Your task to perform on an android device: turn on translation in the chrome app Image 0: 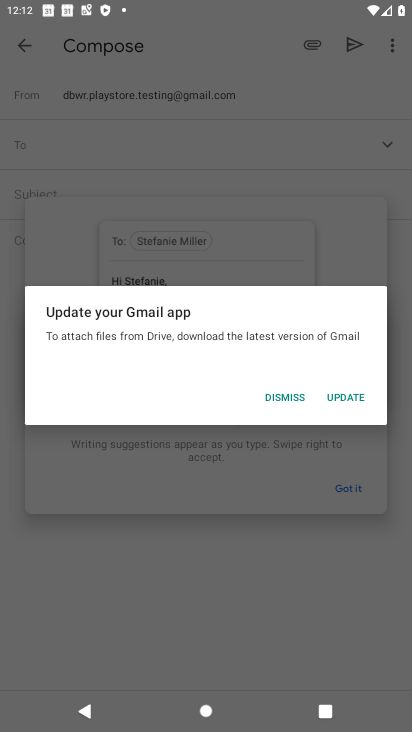
Step 0: press home button
Your task to perform on an android device: turn on translation in the chrome app Image 1: 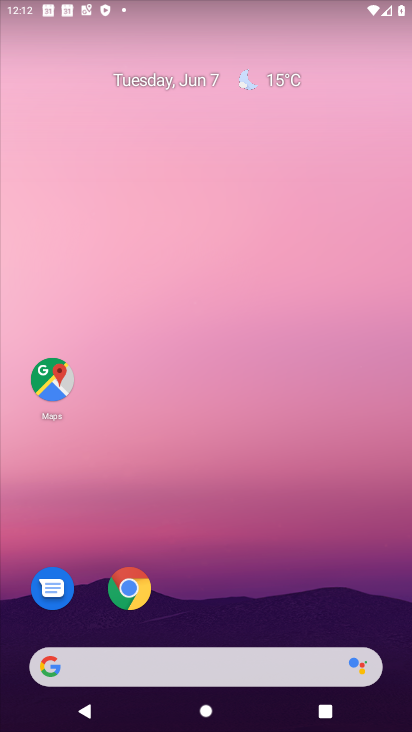
Step 1: click (119, 580)
Your task to perform on an android device: turn on translation in the chrome app Image 2: 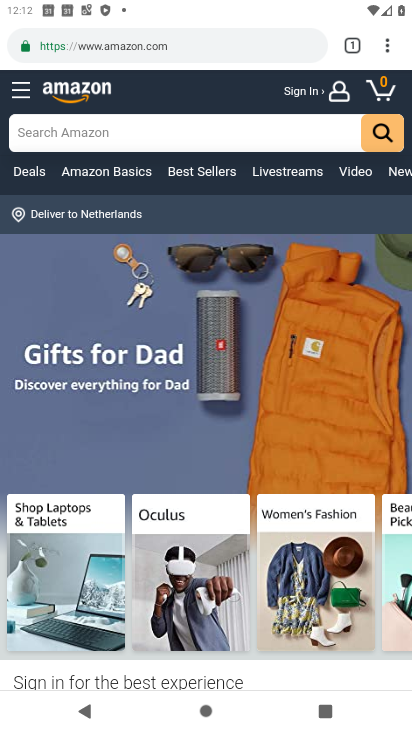
Step 2: click (392, 51)
Your task to perform on an android device: turn on translation in the chrome app Image 3: 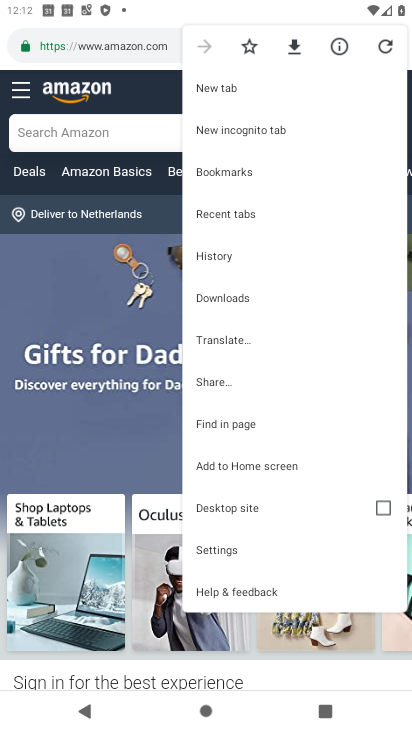
Step 3: click (228, 550)
Your task to perform on an android device: turn on translation in the chrome app Image 4: 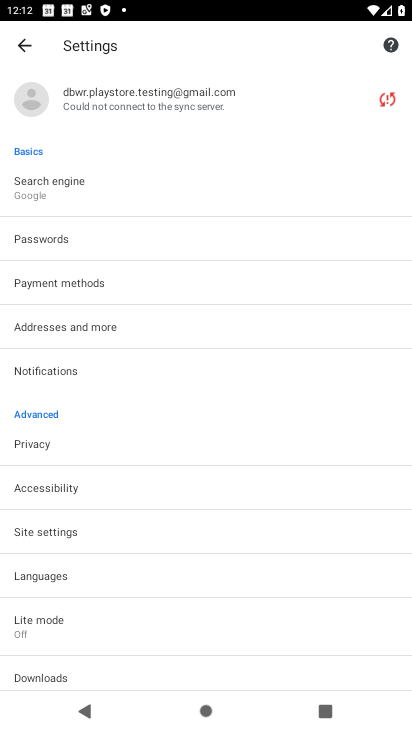
Step 4: click (76, 565)
Your task to perform on an android device: turn on translation in the chrome app Image 5: 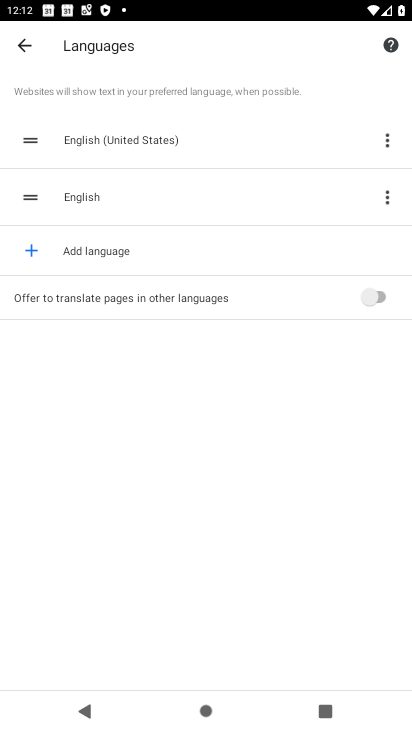
Step 5: click (370, 296)
Your task to perform on an android device: turn on translation in the chrome app Image 6: 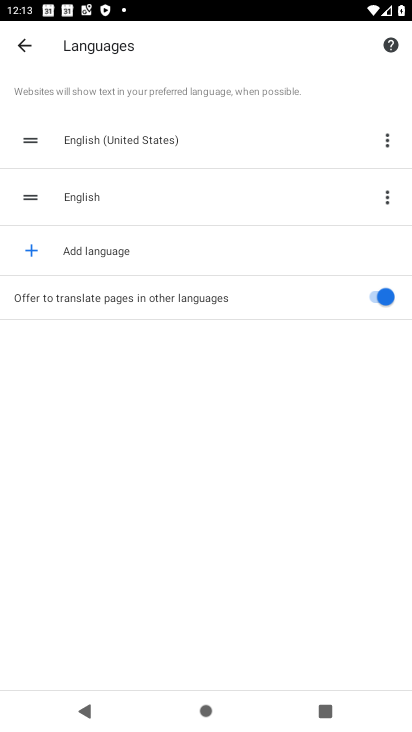
Step 6: task complete